Your task to perform on an android device: toggle translation in the chrome app Image 0: 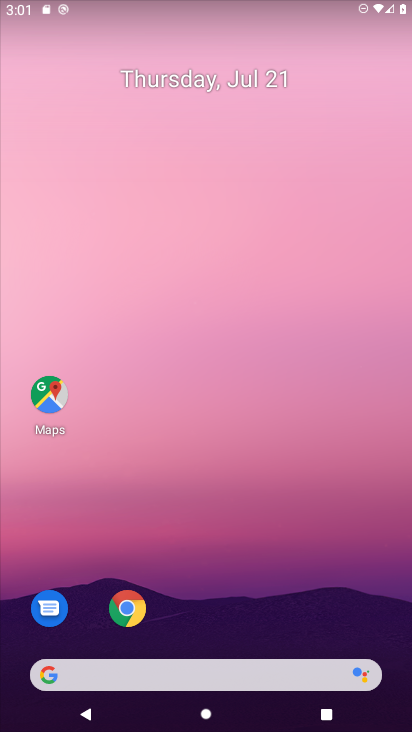
Step 0: click (143, 615)
Your task to perform on an android device: toggle translation in the chrome app Image 1: 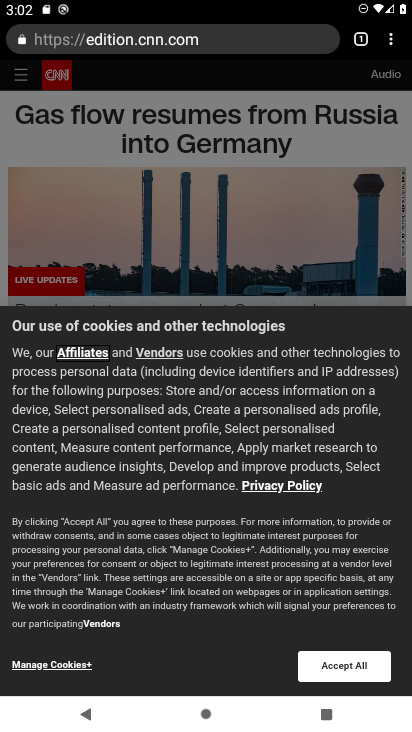
Step 1: click (386, 47)
Your task to perform on an android device: toggle translation in the chrome app Image 2: 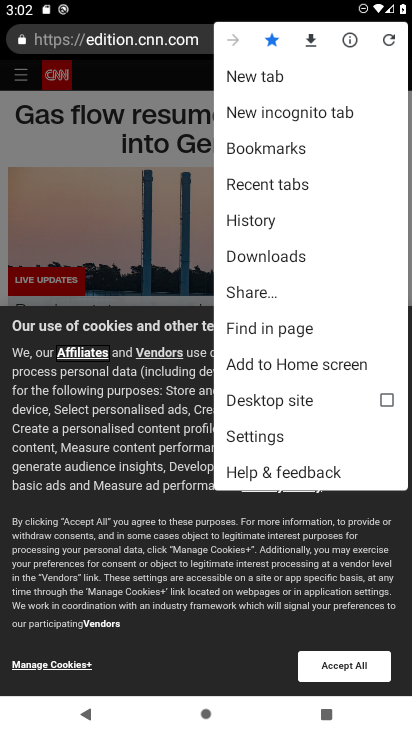
Step 2: click (277, 431)
Your task to perform on an android device: toggle translation in the chrome app Image 3: 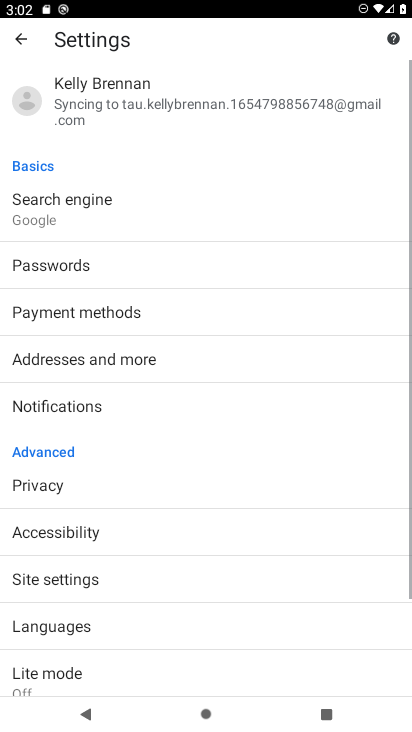
Step 3: click (146, 627)
Your task to perform on an android device: toggle translation in the chrome app Image 4: 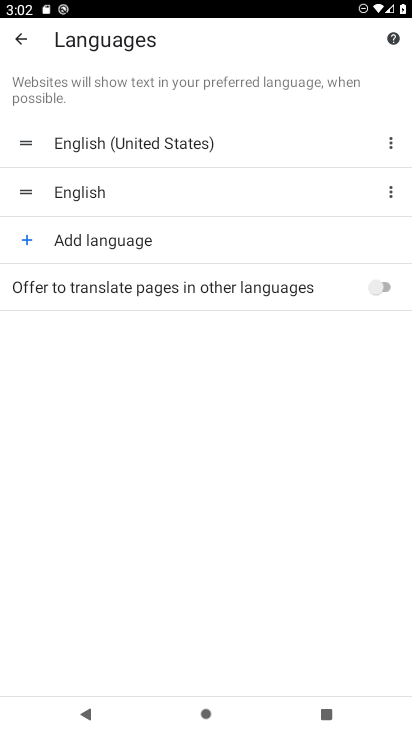
Step 4: click (390, 292)
Your task to perform on an android device: toggle translation in the chrome app Image 5: 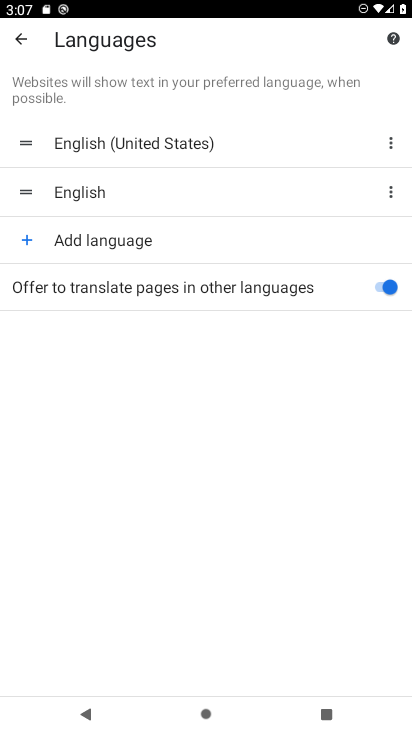
Step 5: task complete